Your task to perform on an android device: Go to display settings Image 0: 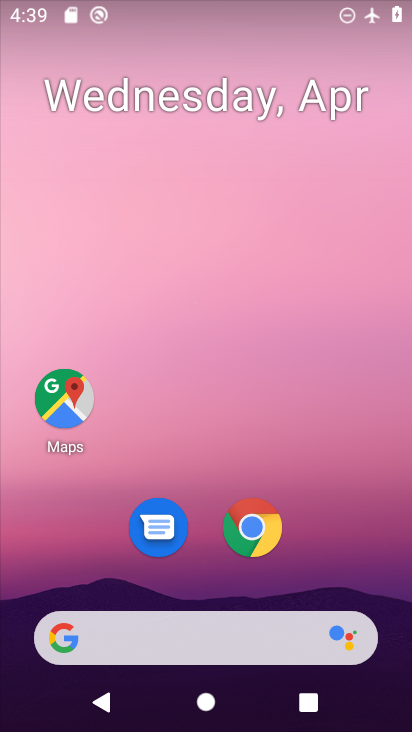
Step 0: drag from (355, 544) to (364, 4)
Your task to perform on an android device: Go to display settings Image 1: 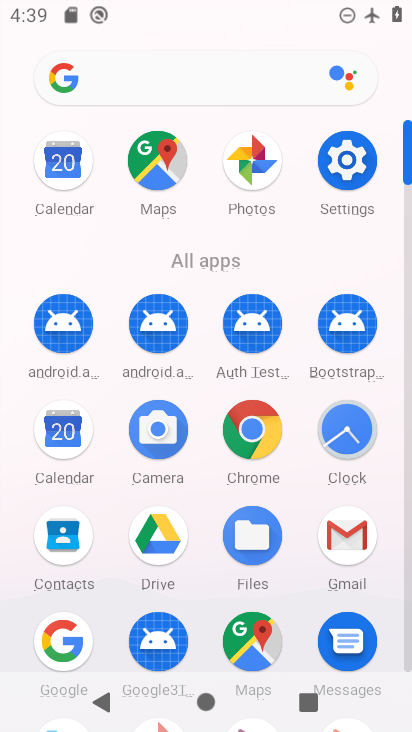
Step 1: click (354, 161)
Your task to perform on an android device: Go to display settings Image 2: 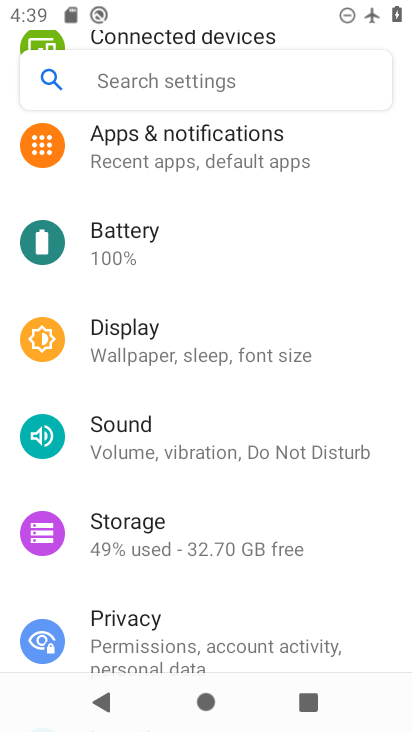
Step 2: click (117, 348)
Your task to perform on an android device: Go to display settings Image 3: 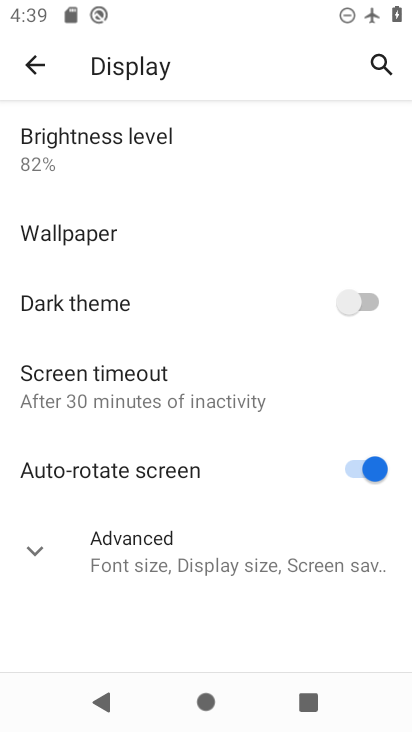
Step 3: task complete